Your task to perform on an android device: What's the weather going to be this weekend? Image 0: 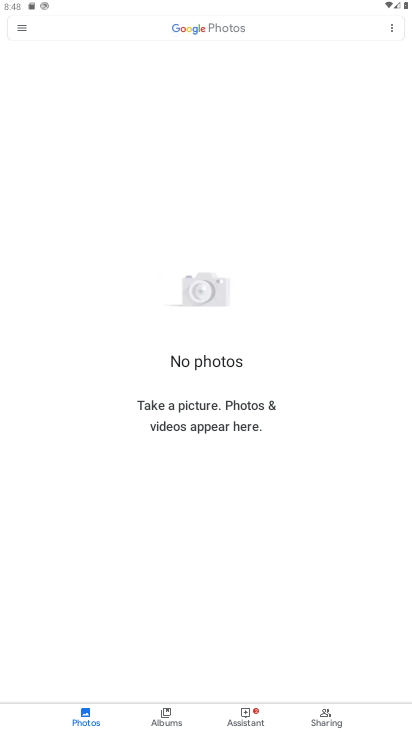
Step 0: press home button
Your task to perform on an android device: What's the weather going to be this weekend? Image 1: 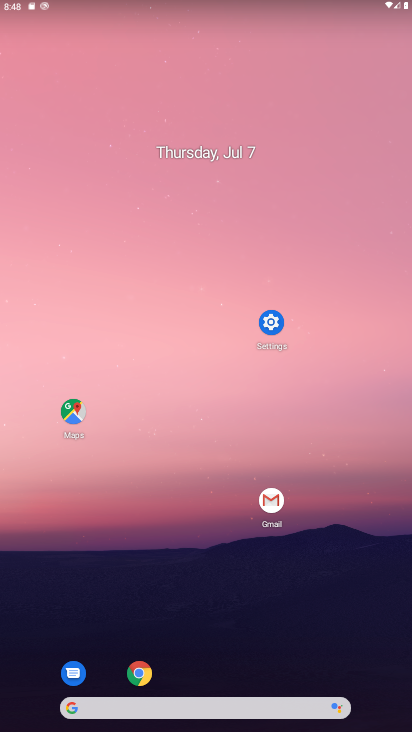
Step 1: click (397, 649)
Your task to perform on an android device: What's the weather going to be this weekend? Image 2: 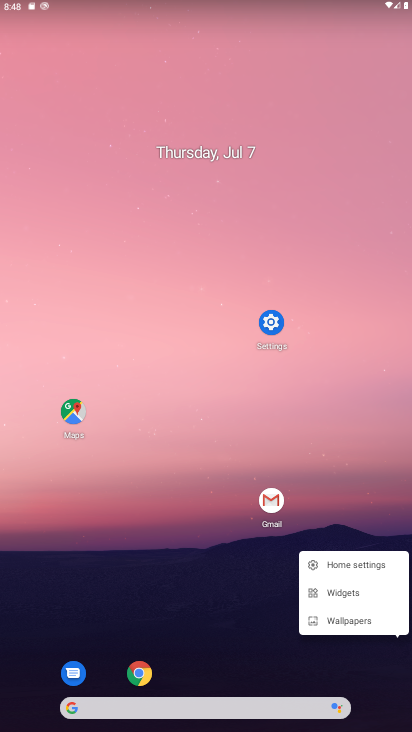
Step 2: drag from (374, 464) to (281, 61)
Your task to perform on an android device: What's the weather going to be this weekend? Image 3: 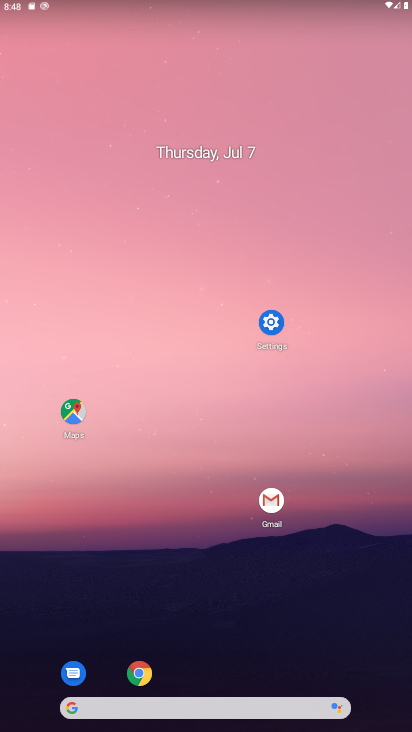
Step 3: drag from (378, 685) to (253, 1)
Your task to perform on an android device: What's the weather going to be this weekend? Image 4: 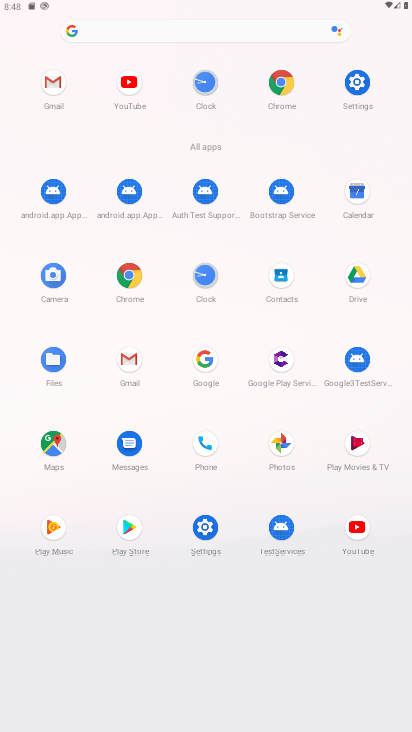
Step 4: click (201, 352)
Your task to perform on an android device: What's the weather going to be this weekend? Image 5: 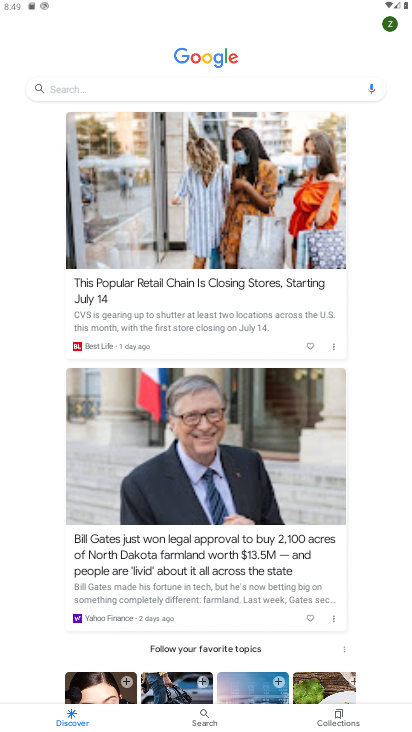
Step 5: task complete